Your task to perform on an android device: Show me popular games on the Play Store Image 0: 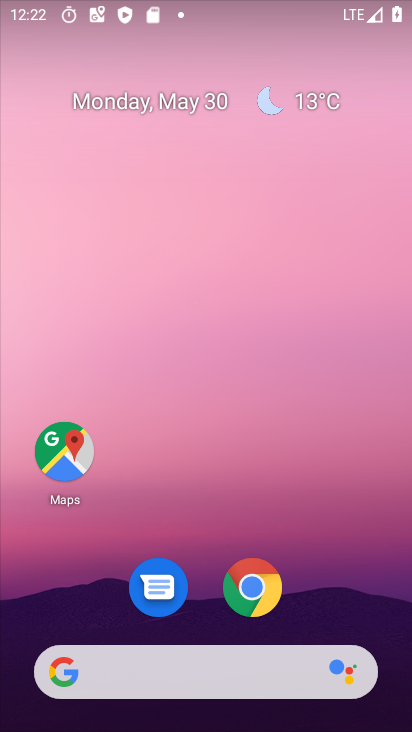
Step 0: press home button
Your task to perform on an android device: Show me popular games on the Play Store Image 1: 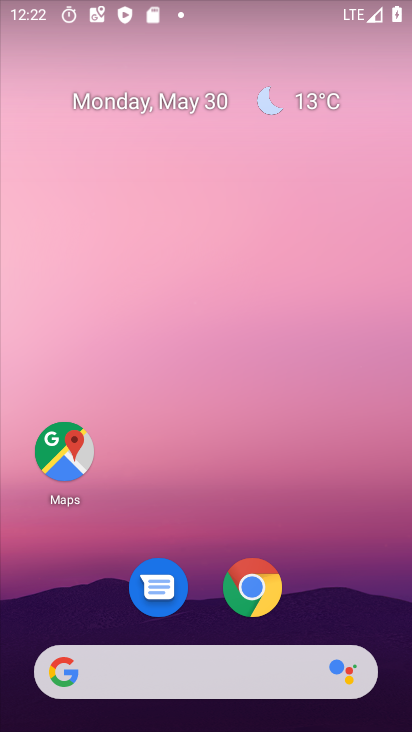
Step 1: drag from (350, 500) to (302, 45)
Your task to perform on an android device: Show me popular games on the Play Store Image 2: 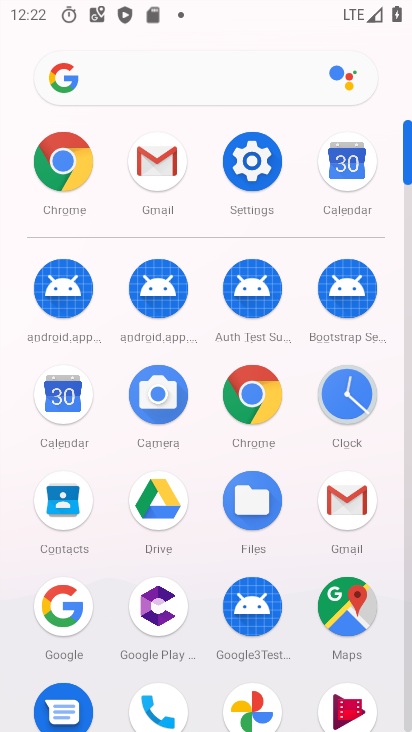
Step 2: drag from (294, 637) to (331, 201)
Your task to perform on an android device: Show me popular games on the Play Store Image 3: 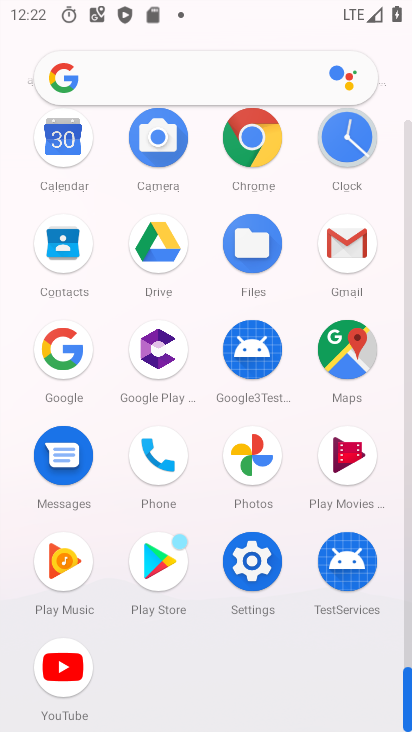
Step 3: click (159, 575)
Your task to perform on an android device: Show me popular games on the Play Store Image 4: 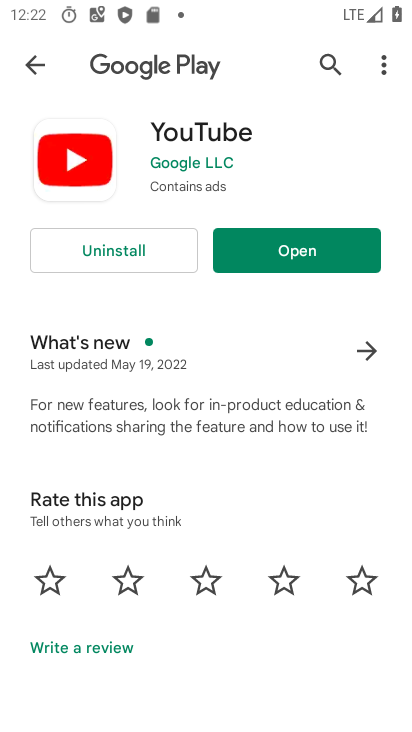
Step 4: click (29, 78)
Your task to perform on an android device: Show me popular games on the Play Store Image 5: 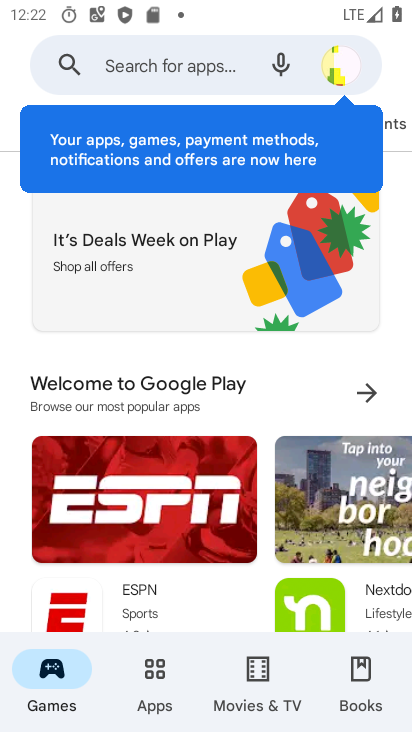
Step 5: task complete